Your task to perform on an android device: check out phone information Image 0: 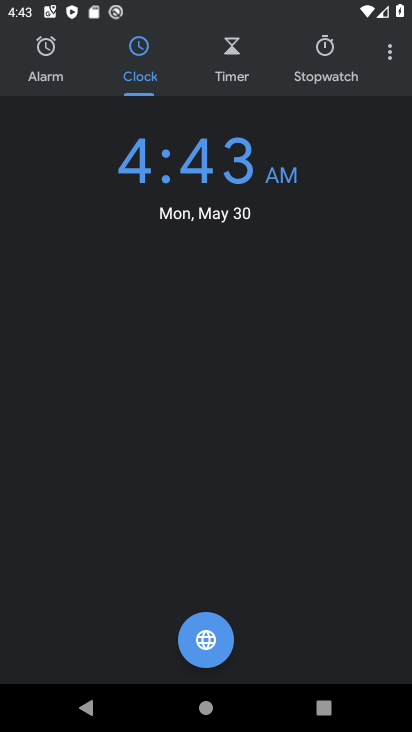
Step 0: press home button
Your task to perform on an android device: check out phone information Image 1: 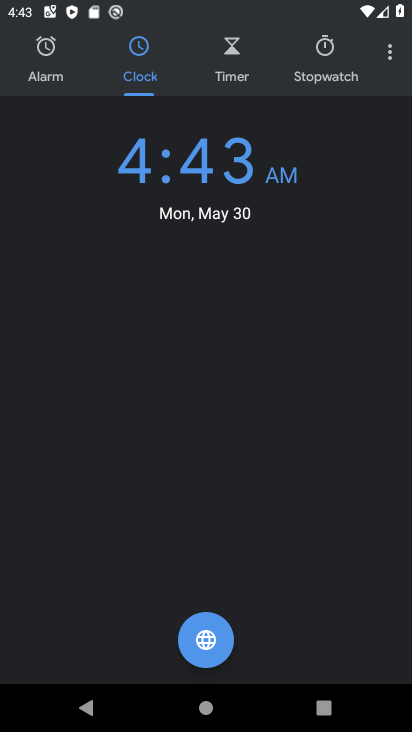
Step 1: press home button
Your task to perform on an android device: check out phone information Image 2: 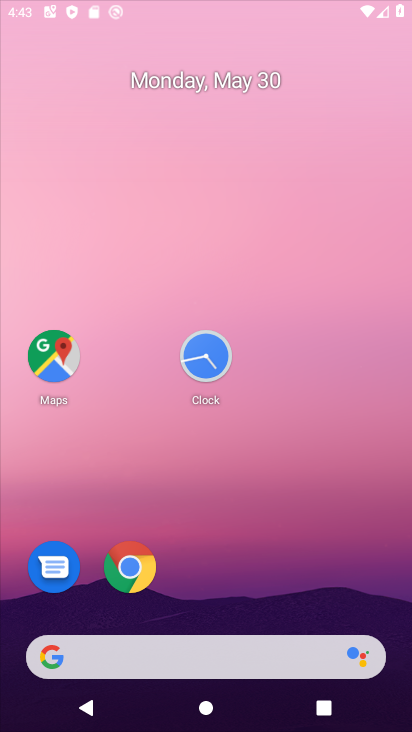
Step 2: press home button
Your task to perform on an android device: check out phone information Image 3: 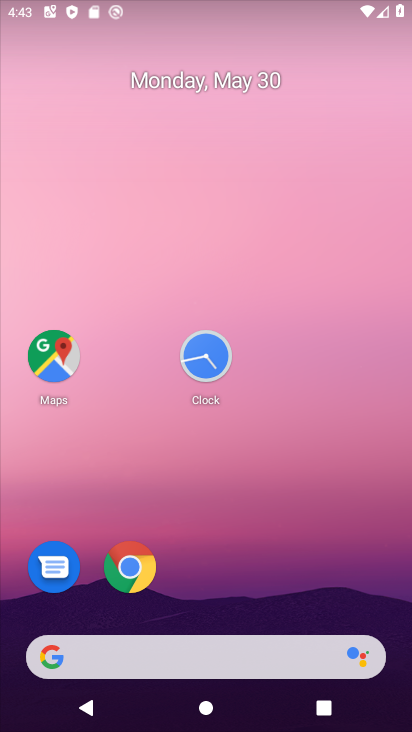
Step 3: press home button
Your task to perform on an android device: check out phone information Image 4: 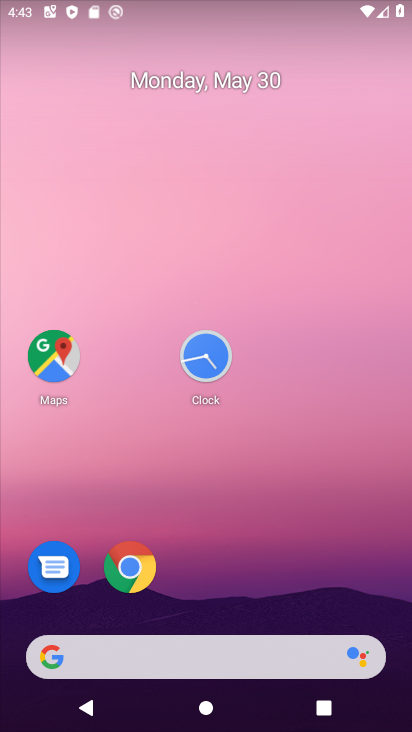
Step 4: drag from (247, 644) to (110, 49)
Your task to perform on an android device: check out phone information Image 5: 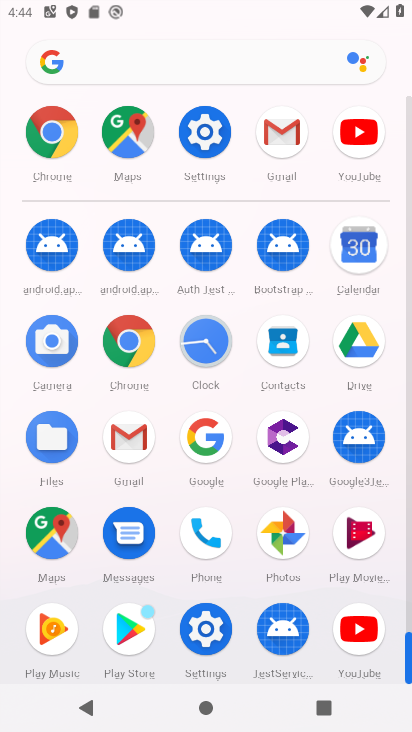
Step 5: click (203, 142)
Your task to perform on an android device: check out phone information Image 6: 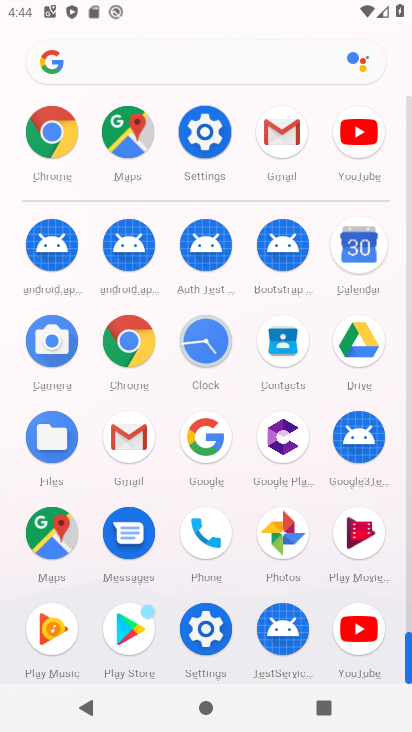
Step 6: click (202, 141)
Your task to perform on an android device: check out phone information Image 7: 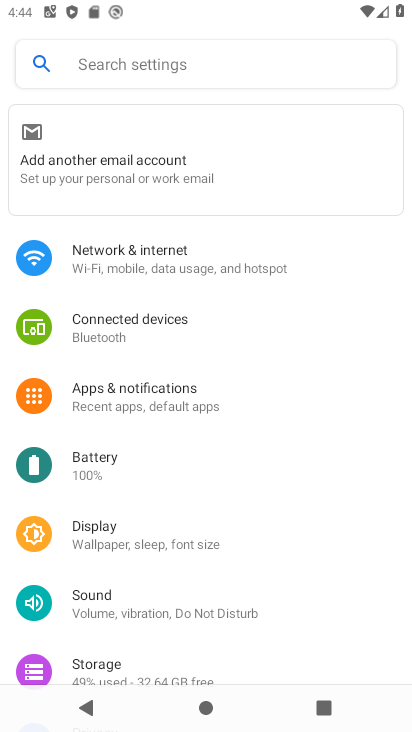
Step 7: click (200, 141)
Your task to perform on an android device: check out phone information Image 8: 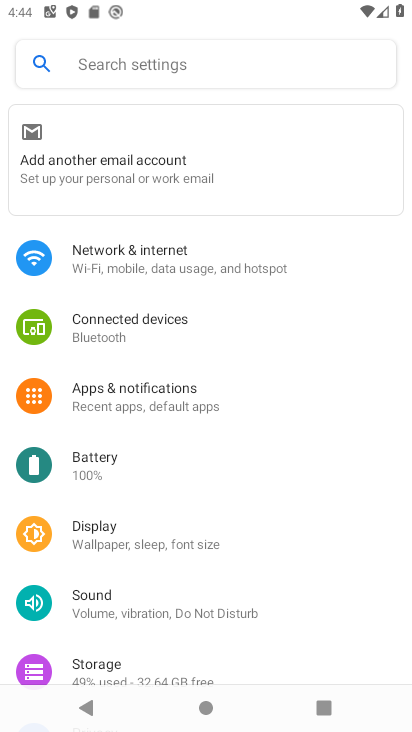
Step 8: drag from (124, 560) to (99, 156)
Your task to perform on an android device: check out phone information Image 9: 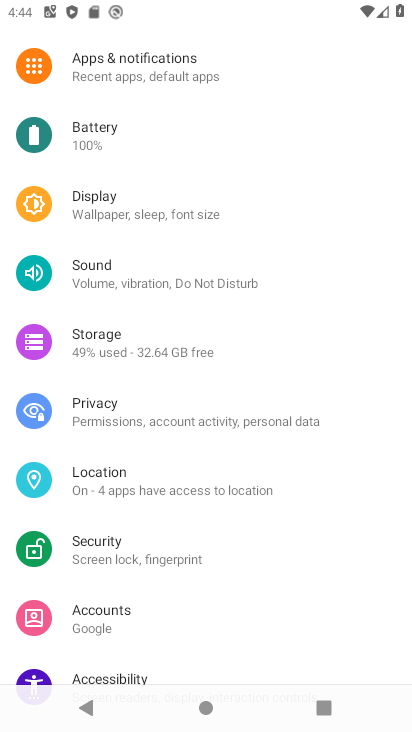
Step 9: drag from (143, 420) to (94, 87)
Your task to perform on an android device: check out phone information Image 10: 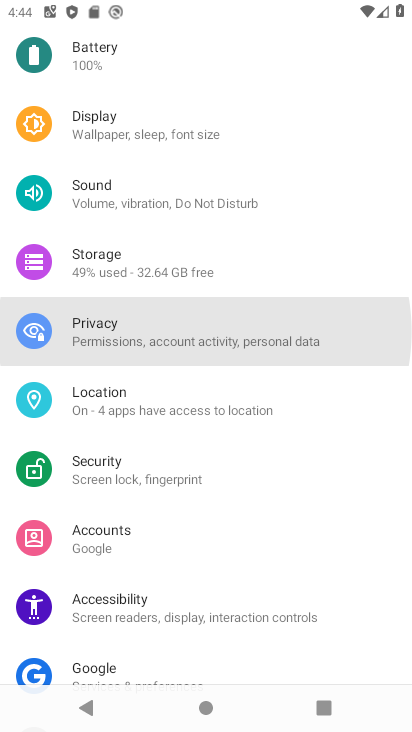
Step 10: drag from (114, 416) to (107, 197)
Your task to perform on an android device: check out phone information Image 11: 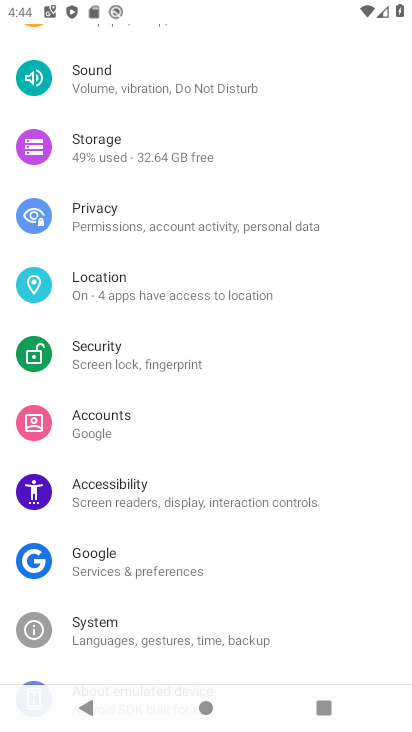
Step 11: drag from (135, 513) to (112, 101)
Your task to perform on an android device: check out phone information Image 12: 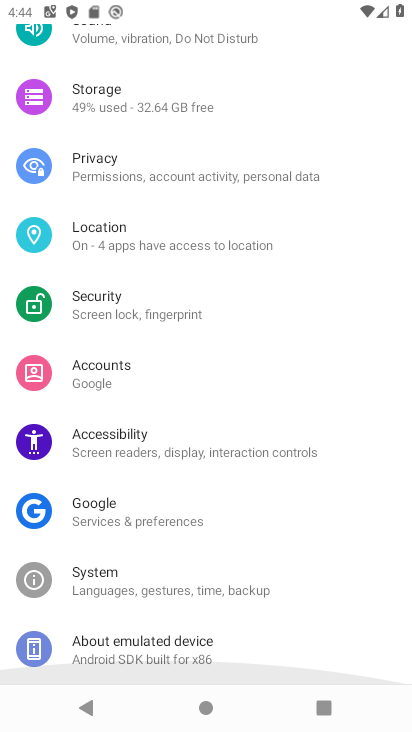
Step 12: drag from (167, 417) to (148, 142)
Your task to perform on an android device: check out phone information Image 13: 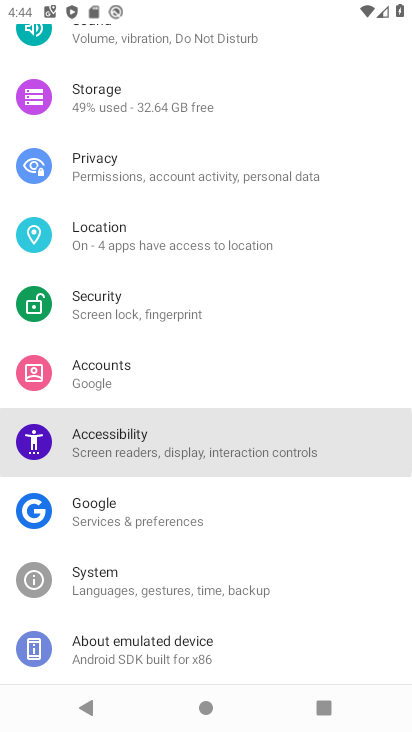
Step 13: drag from (210, 428) to (176, 101)
Your task to perform on an android device: check out phone information Image 14: 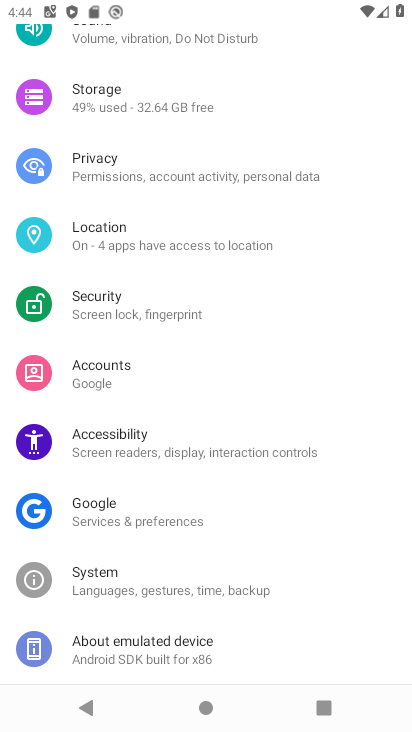
Step 14: click (125, 653)
Your task to perform on an android device: check out phone information Image 15: 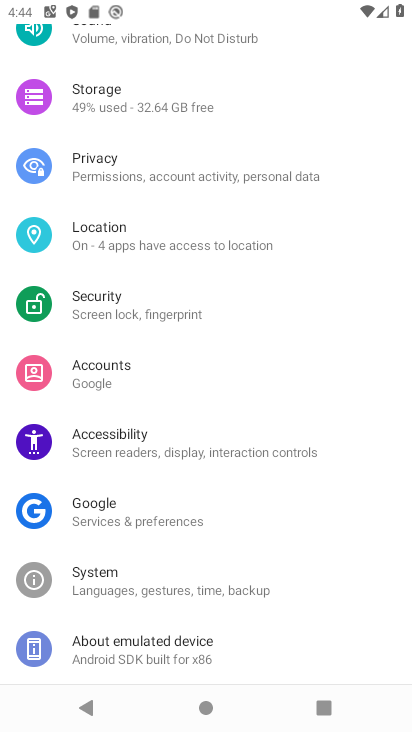
Step 15: click (117, 649)
Your task to perform on an android device: check out phone information Image 16: 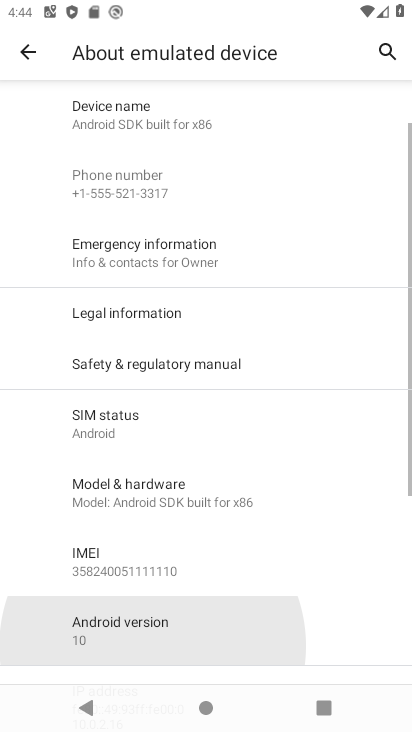
Step 16: click (116, 648)
Your task to perform on an android device: check out phone information Image 17: 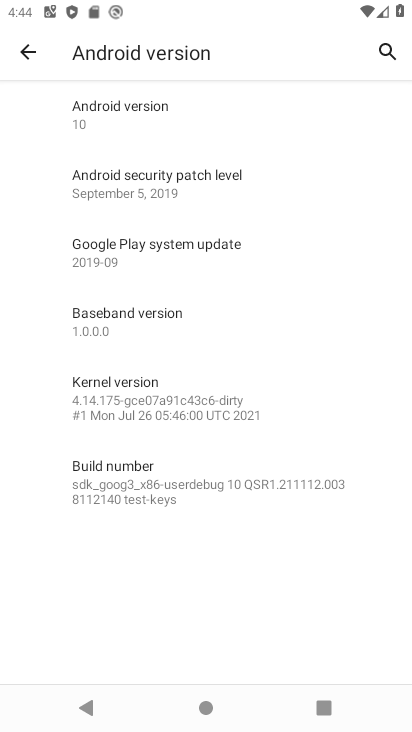
Step 17: drag from (186, 248) to (169, 106)
Your task to perform on an android device: check out phone information Image 18: 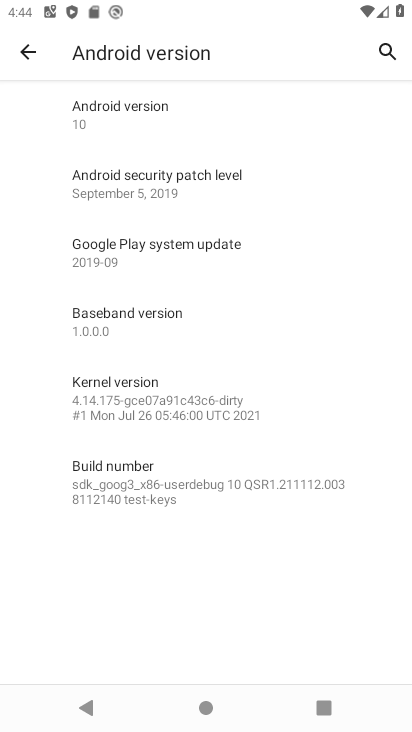
Step 18: drag from (184, 351) to (144, 7)
Your task to perform on an android device: check out phone information Image 19: 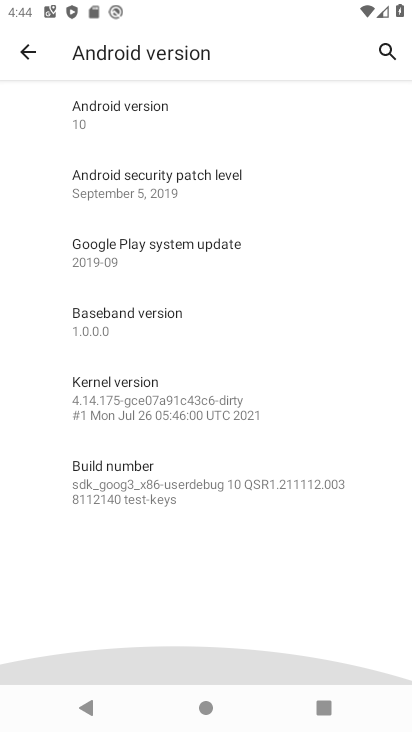
Step 19: drag from (225, 272) to (223, 95)
Your task to perform on an android device: check out phone information Image 20: 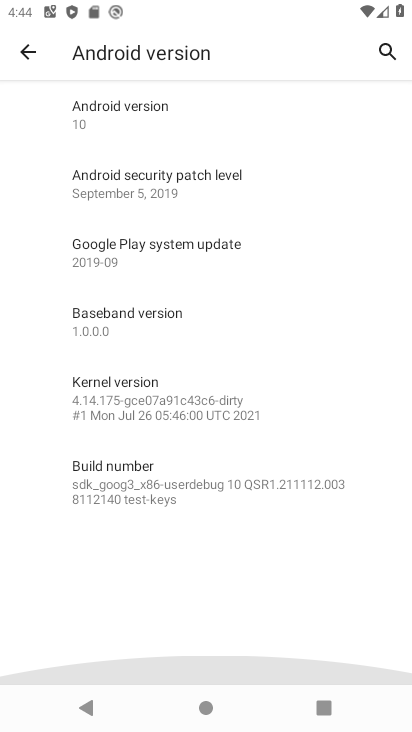
Step 20: drag from (217, 268) to (178, 123)
Your task to perform on an android device: check out phone information Image 21: 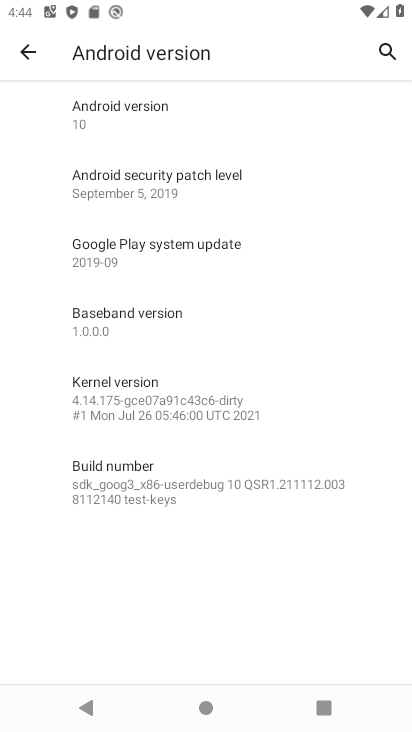
Step 21: click (24, 45)
Your task to perform on an android device: check out phone information Image 22: 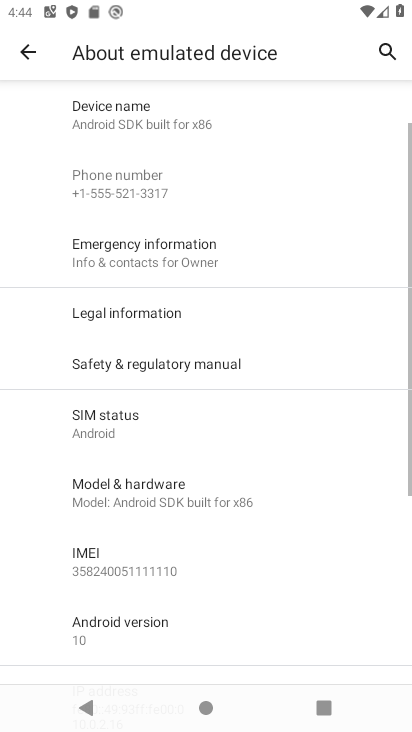
Step 22: task complete